Your task to perform on an android device: Is it going to rain this weekend? Image 0: 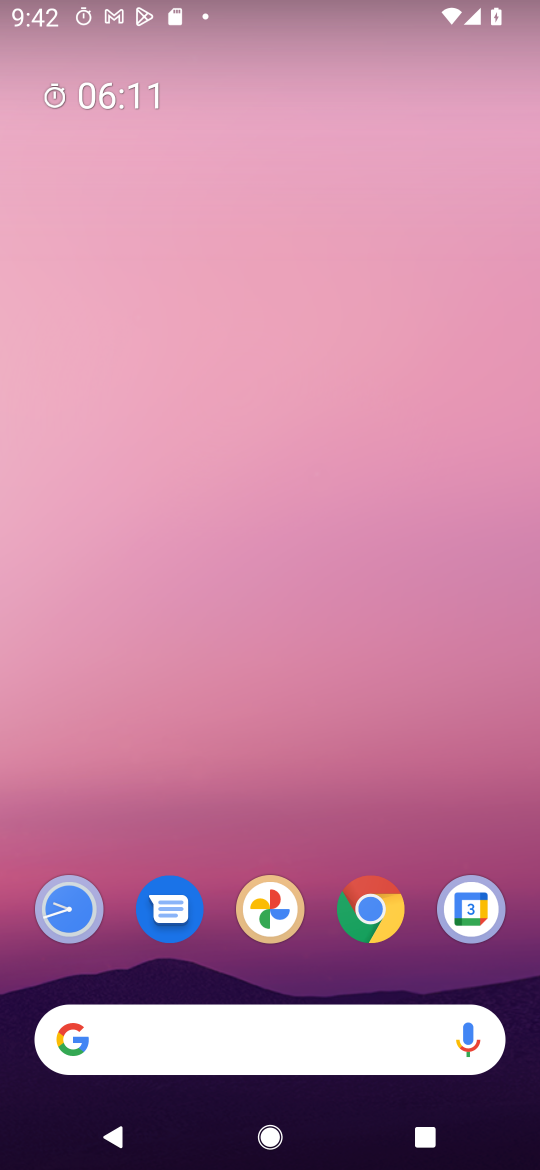
Step 0: press home button
Your task to perform on an android device: Is it going to rain this weekend? Image 1: 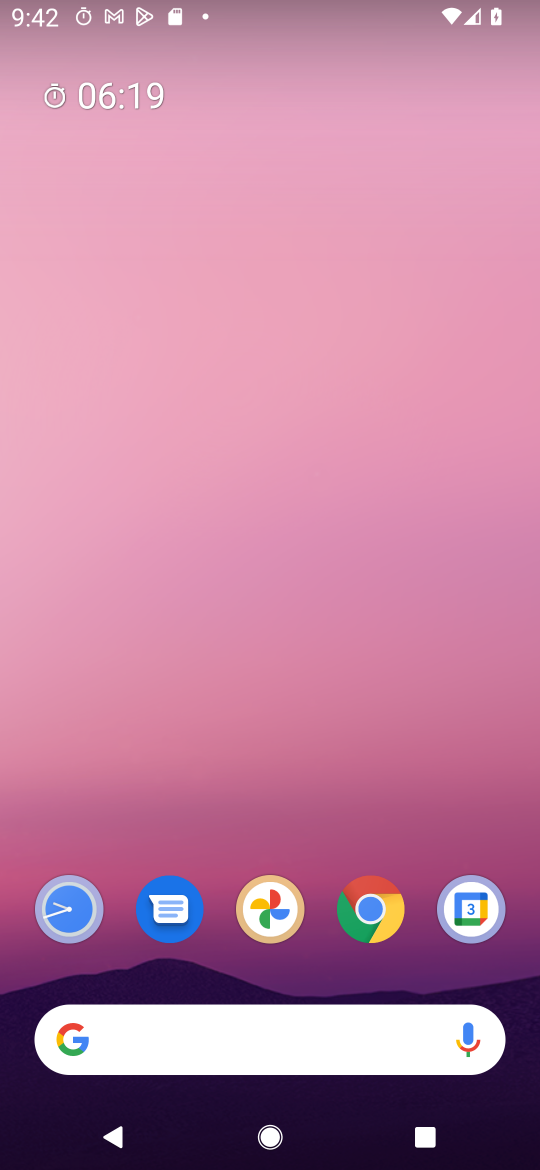
Step 1: click (287, 1046)
Your task to perform on an android device: Is it going to rain this weekend? Image 2: 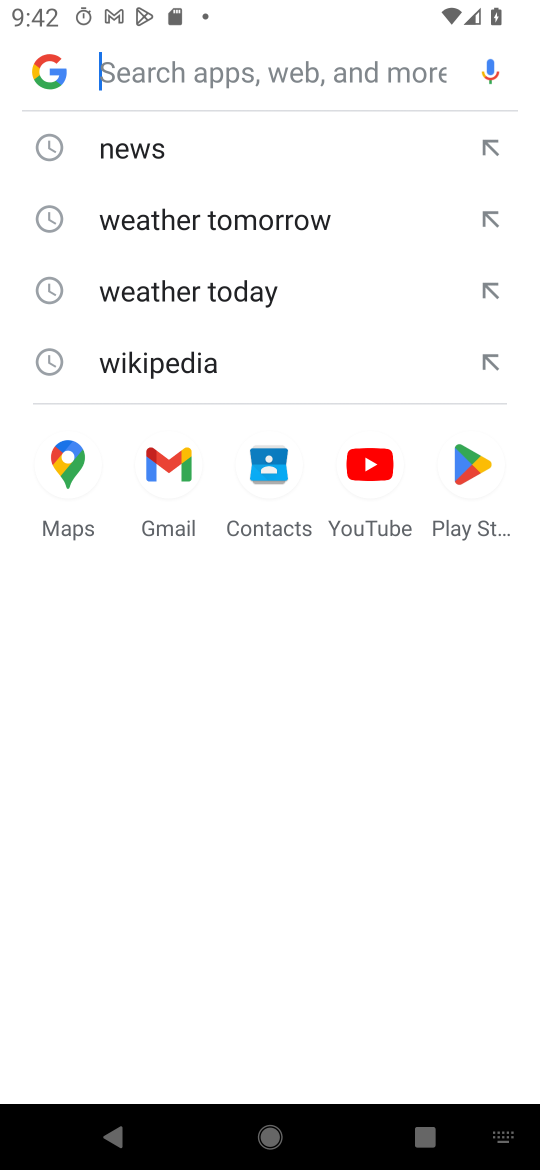
Step 2: click (300, 85)
Your task to perform on an android device: Is it going to rain this weekend? Image 3: 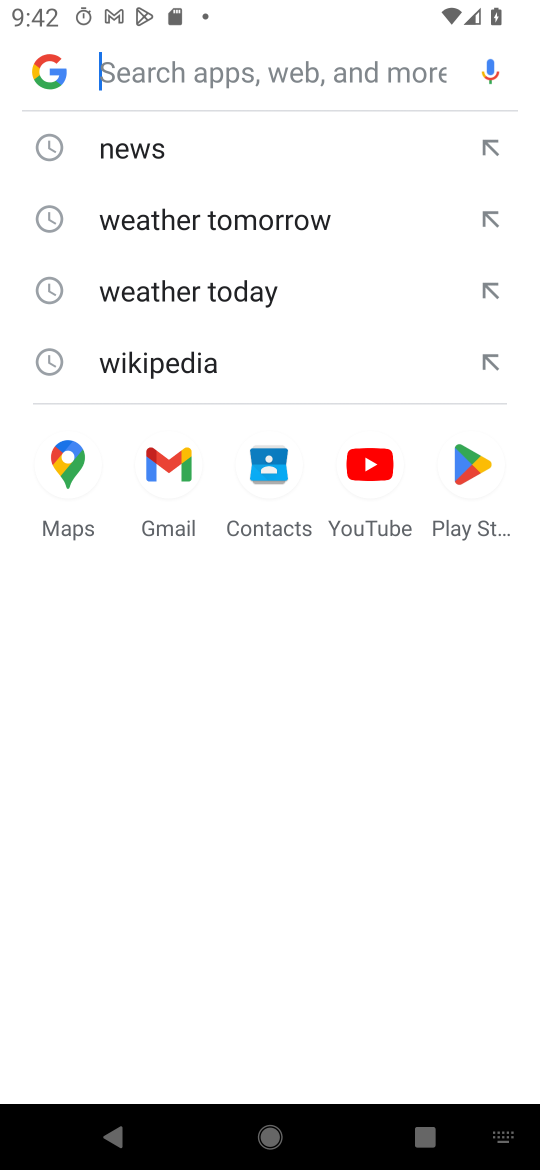
Step 3: type "weather"
Your task to perform on an android device: Is it going to rain this weekend? Image 4: 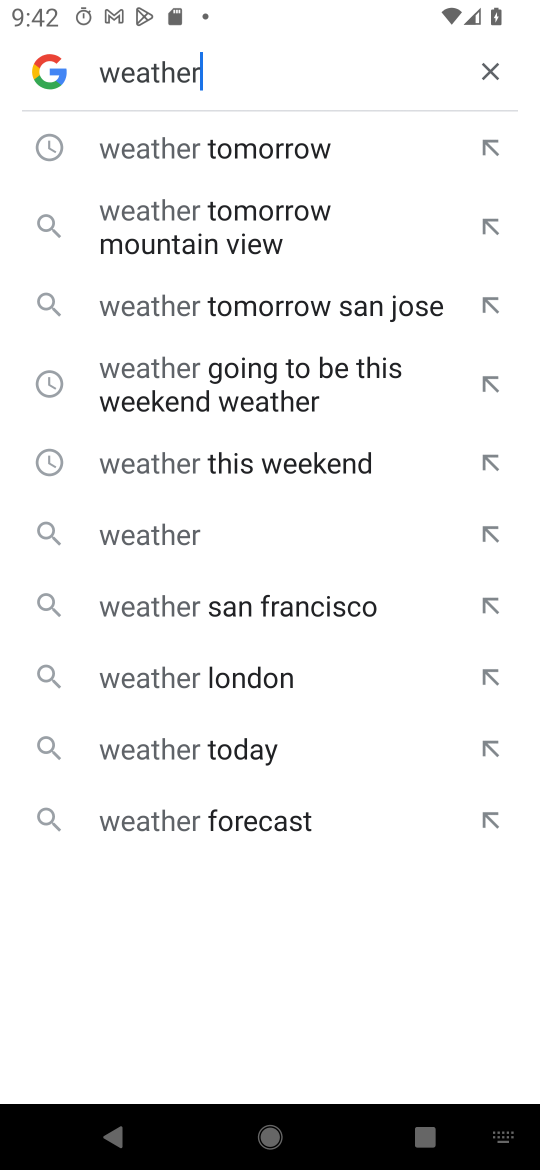
Step 4: click (233, 537)
Your task to perform on an android device: Is it going to rain this weekend? Image 5: 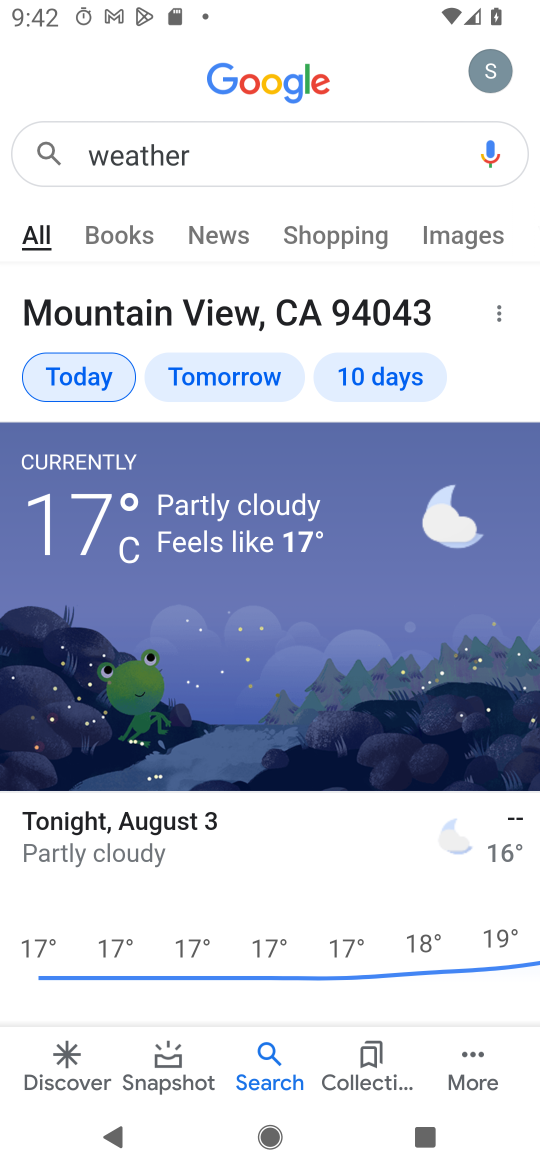
Step 5: click (380, 376)
Your task to perform on an android device: Is it going to rain this weekend? Image 6: 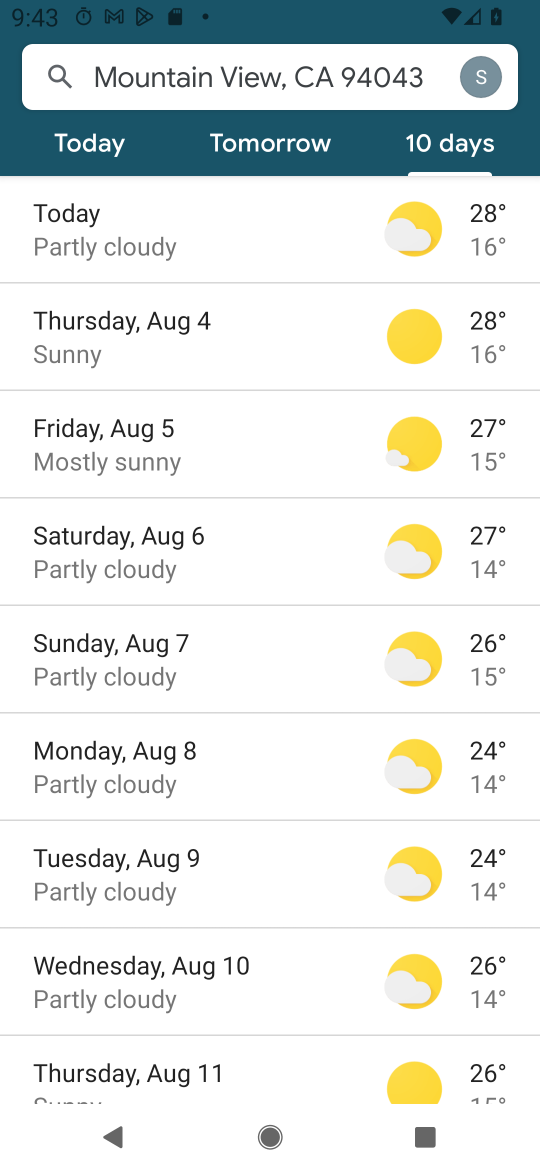
Step 6: click (254, 552)
Your task to perform on an android device: Is it going to rain this weekend? Image 7: 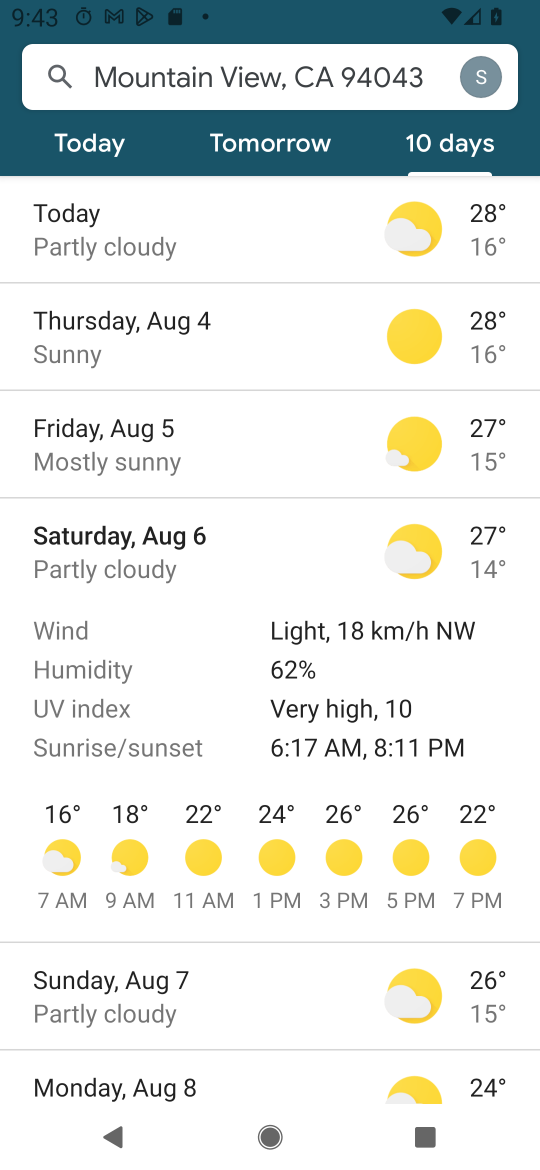
Step 7: task complete